Your task to perform on an android device: Go to Yahoo.com Image 0: 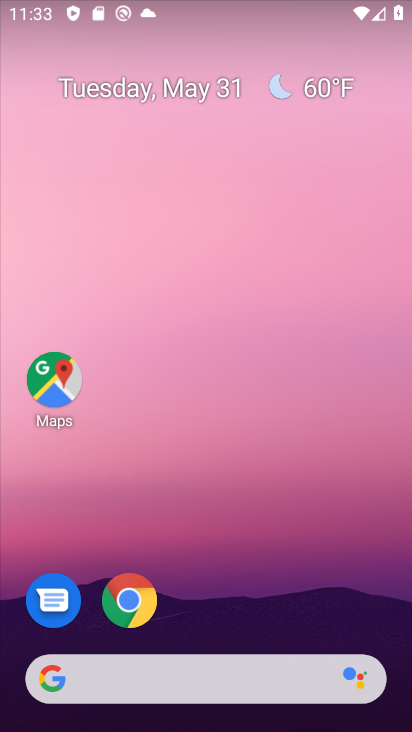
Step 0: drag from (312, 617) to (347, 91)
Your task to perform on an android device: Go to Yahoo.com Image 1: 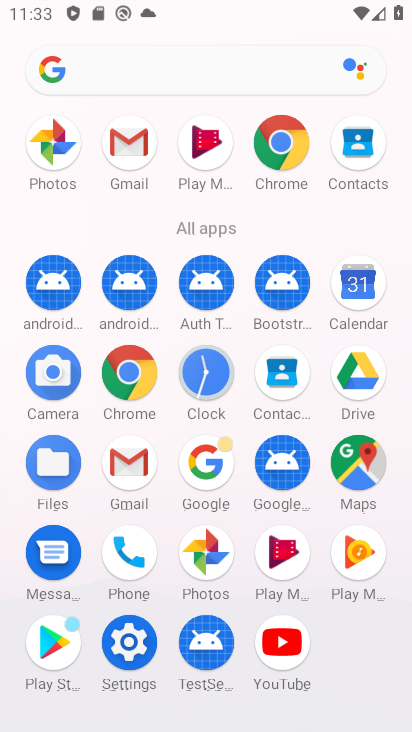
Step 1: click (287, 153)
Your task to perform on an android device: Go to Yahoo.com Image 2: 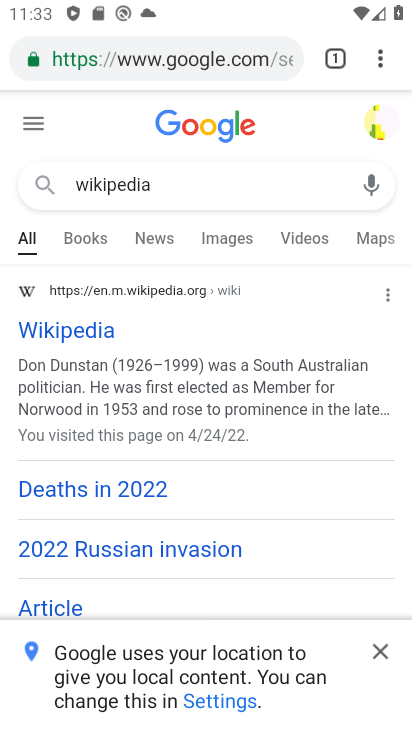
Step 2: click (267, 58)
Your task to perform on an android device: Go to Yahoo.com Image 3: 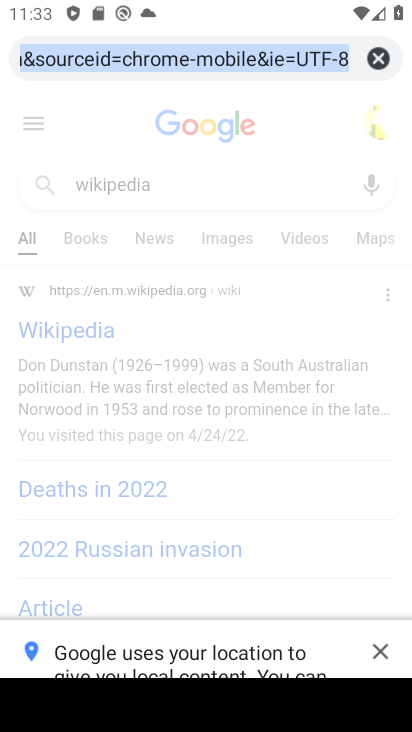
Step 3: click (376, 60)
Your task to perform on an android device: Go to Yahoo.com Image 4: 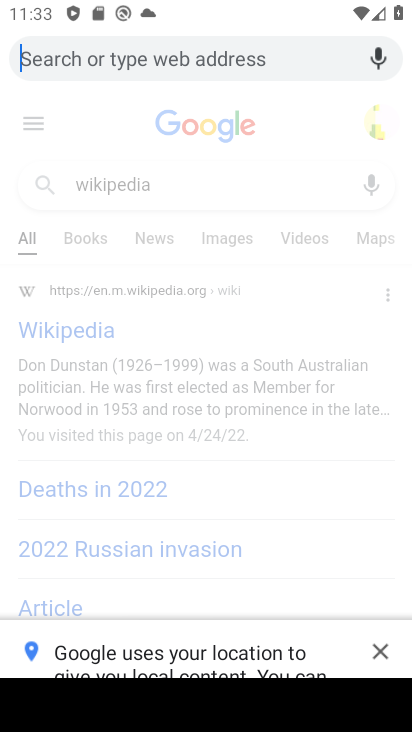
Step 4: type "yahoo.com"
Your task to perform on an android device: Go to Yahoo.com Image 5: 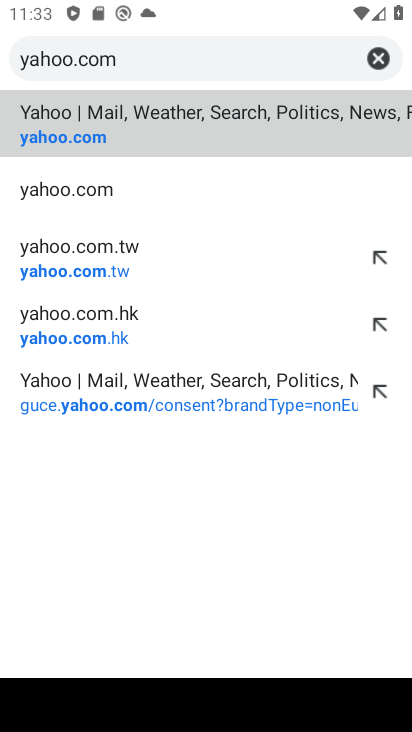
Step 5: click (172, 130)
Your task to perform on an android device: Go to Yahoo.com Image 6: 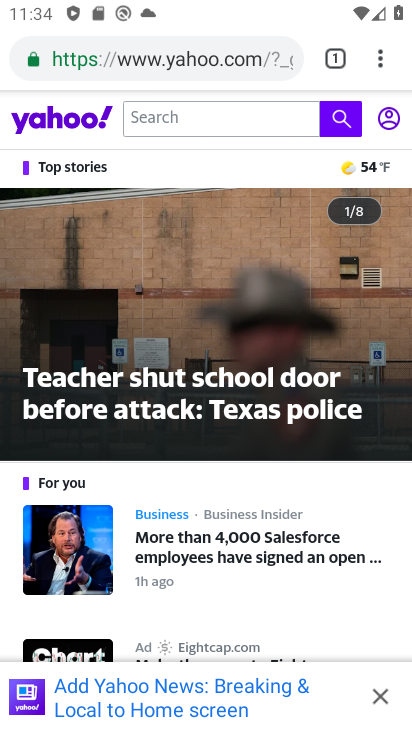
Step 6: task complete